Your task to perform on an android device: visit the assistant section in the google photos Image 0: 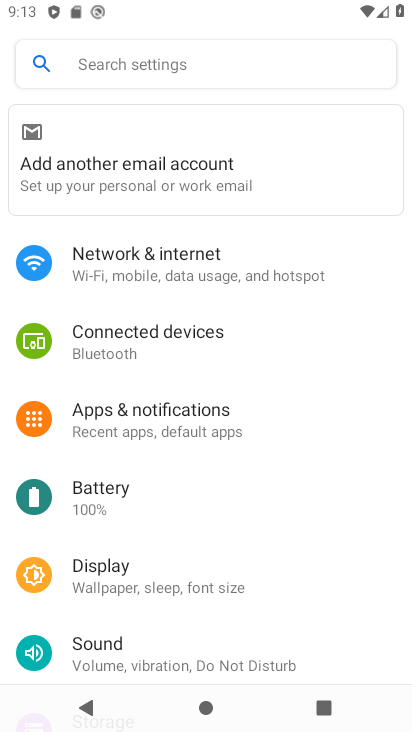
Step 0: press home button
Your task to perform on an android device: visit the assistant section in the google photos Image 1: 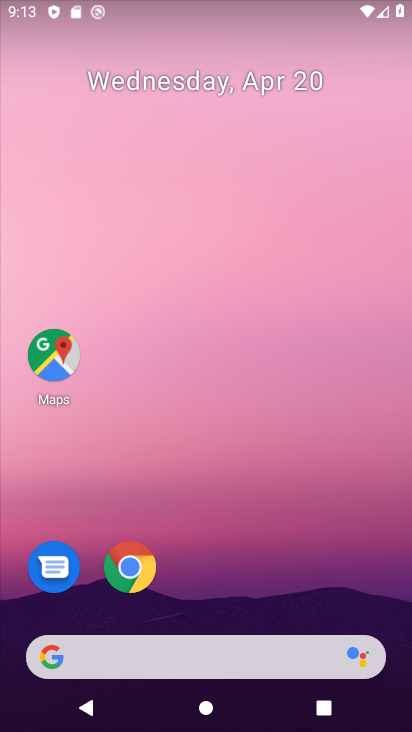
Step 1: drag from (362, 569) to (381, 212)
Your task to perform on an android device: visit the assistant section in the google photos Image 2: 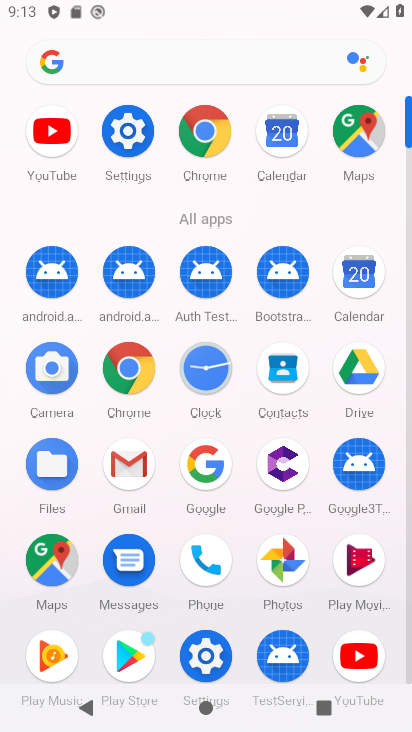
Step 2: click (285, 576)
Your task to perform on an android device: visit the assistant section in the google photos Image 3: 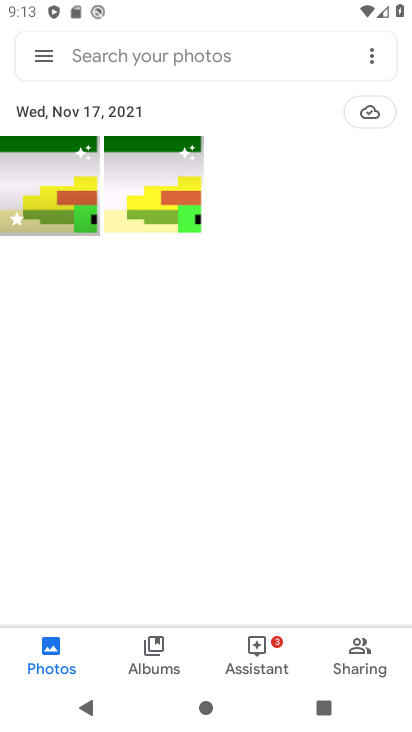
Step 3: click (266, 655)
Your task to perform on an android device: visit the assistant section in the google photos Image 4: 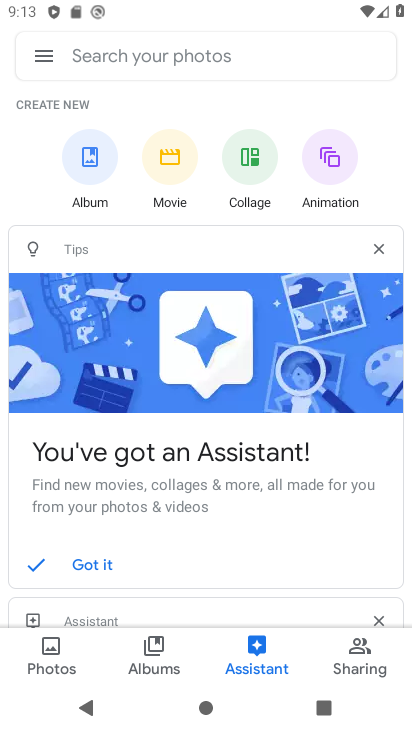
Step 4: task complete